Your task to perform on an android device: Open the web browser Image 0: 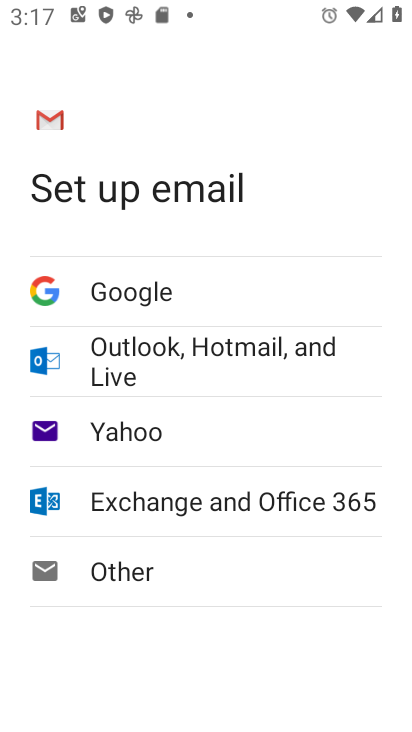
Step 0: press home button
Your task to perform on an android device: Open the web browser Image 1: 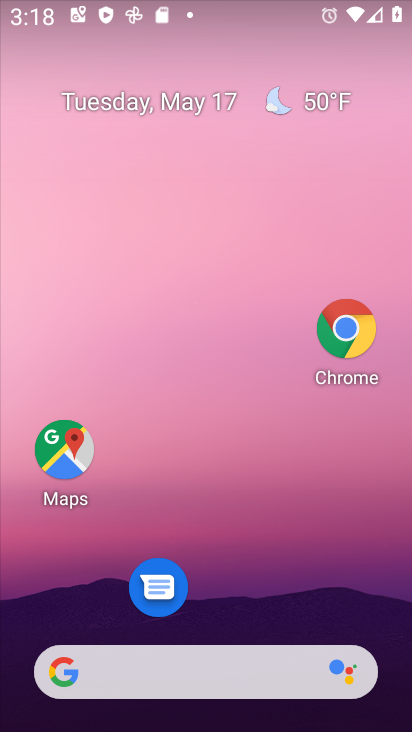
Step 1: click (351, 348)
Your task to perform on an android device: Open the web browser Image 2: 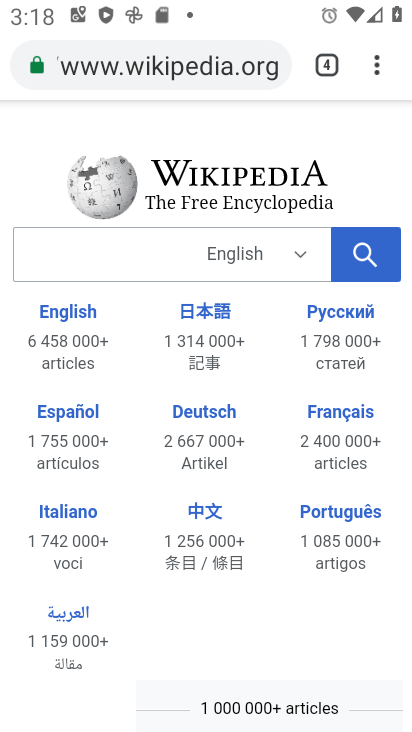
Step 2: task complete